Your task to perform on an android device: Add logitech g910 to the cart on ebay.com, then select checkout. Image 0: 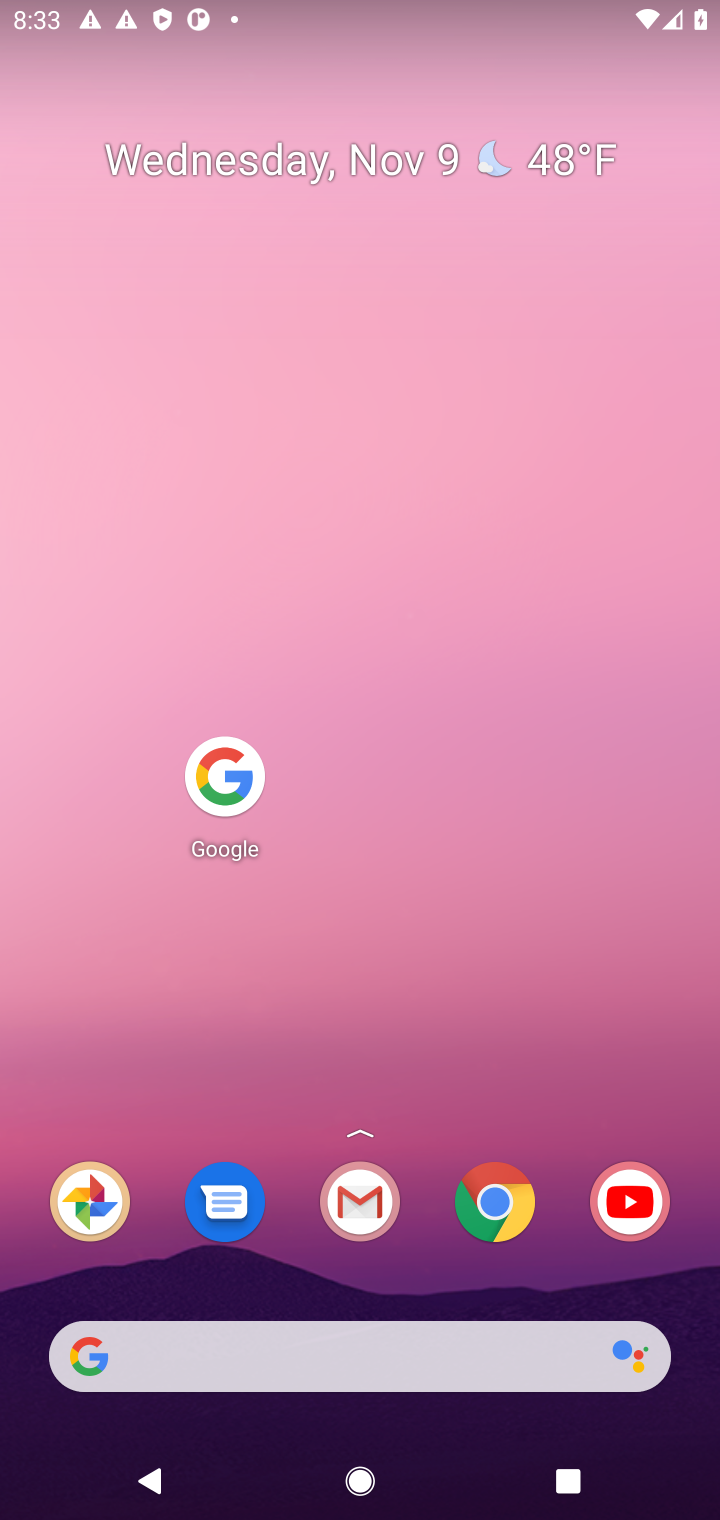
Step 0: click (215, 790)
Your task to perform on an android device: Add logitech g910 to the cart on ebay.com, then select checkout. Image 1: 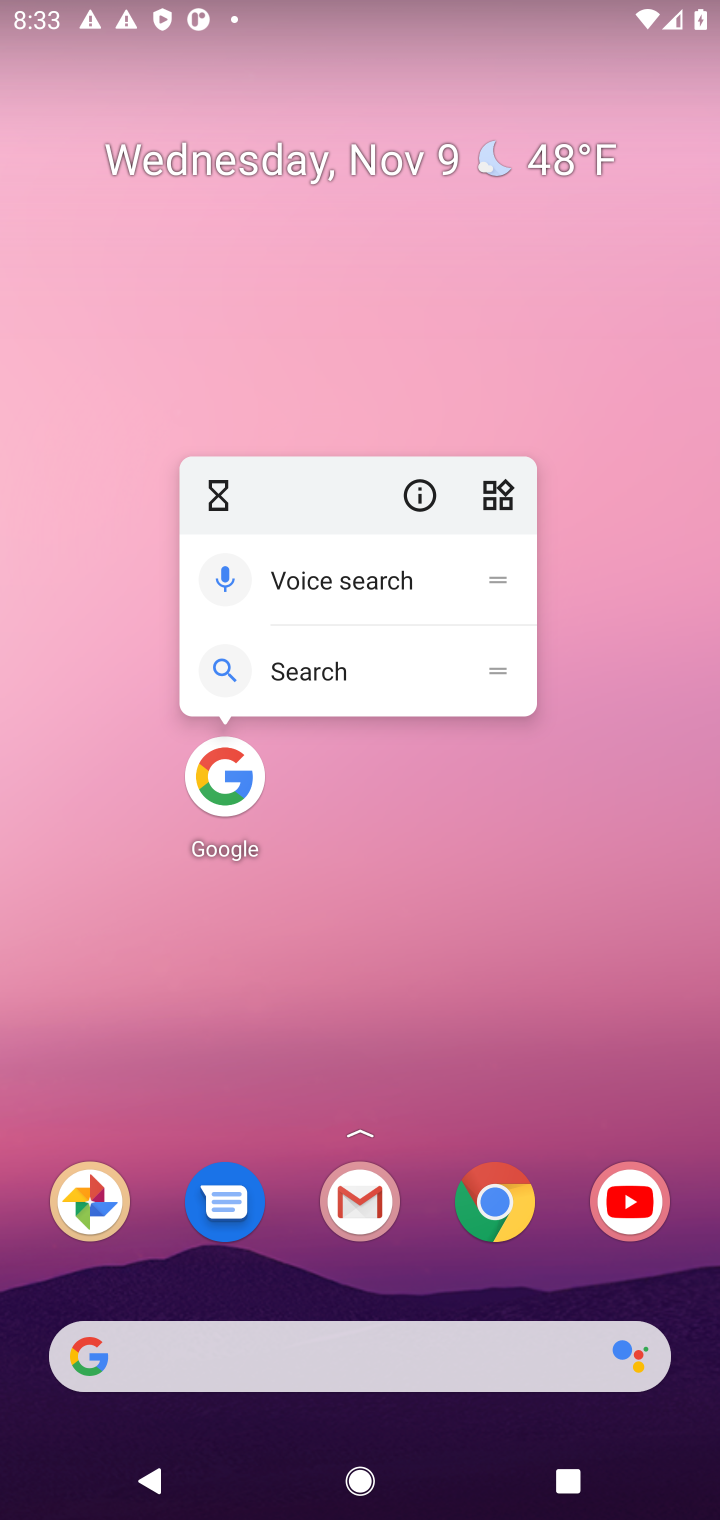
Step 1: click (215, 790)
Your task to perform on an android device: Add logitech g910 to the cart on ebay.com, then select checkout. Image 2: 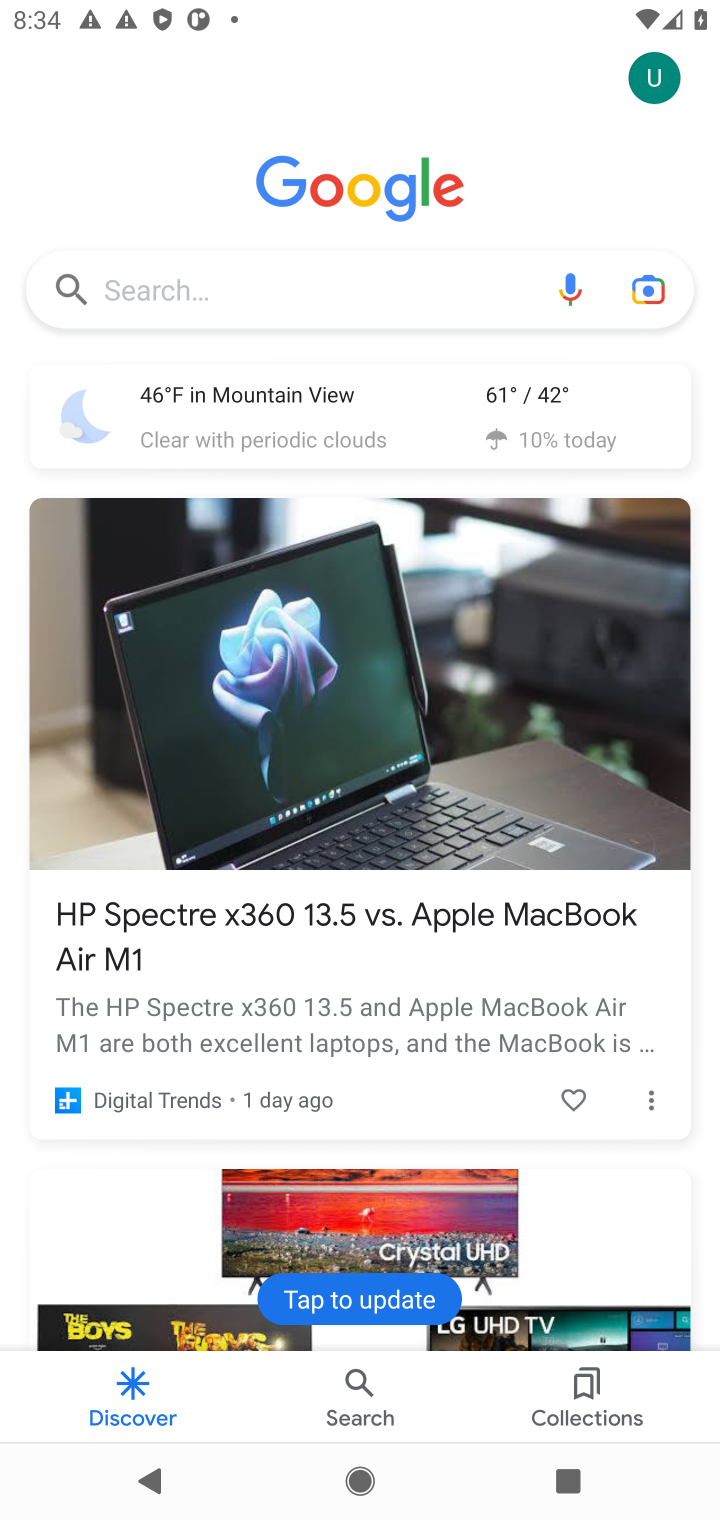
Step 2: click (352, 1381)
Your task to perform on an android device: Add logitech g910 to the cart on ebay.com, then select checkout. Image 3: 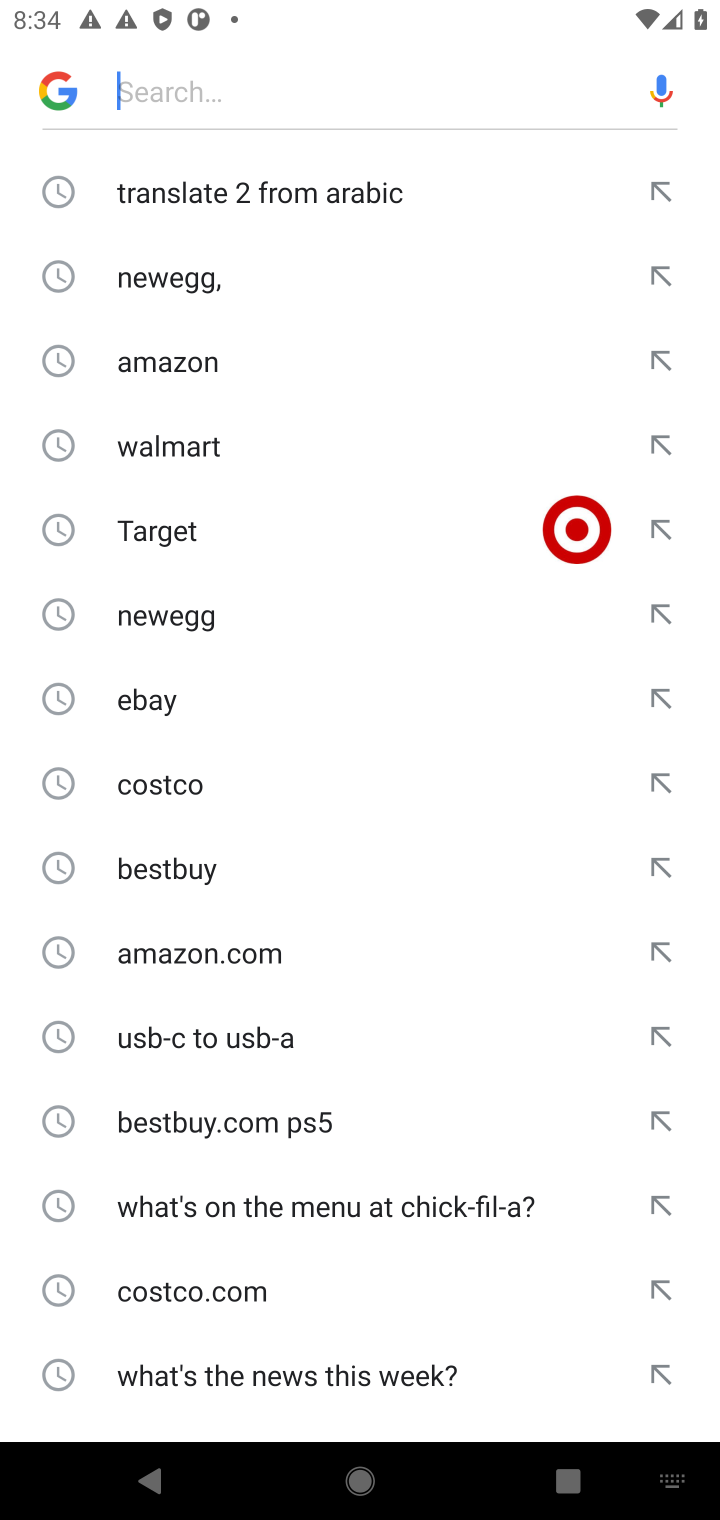
Step 3: click (142, 696)
Your task to perform on an android device: Add logitech g910 to the cart on ebay.com, then select checkout. Image 4: 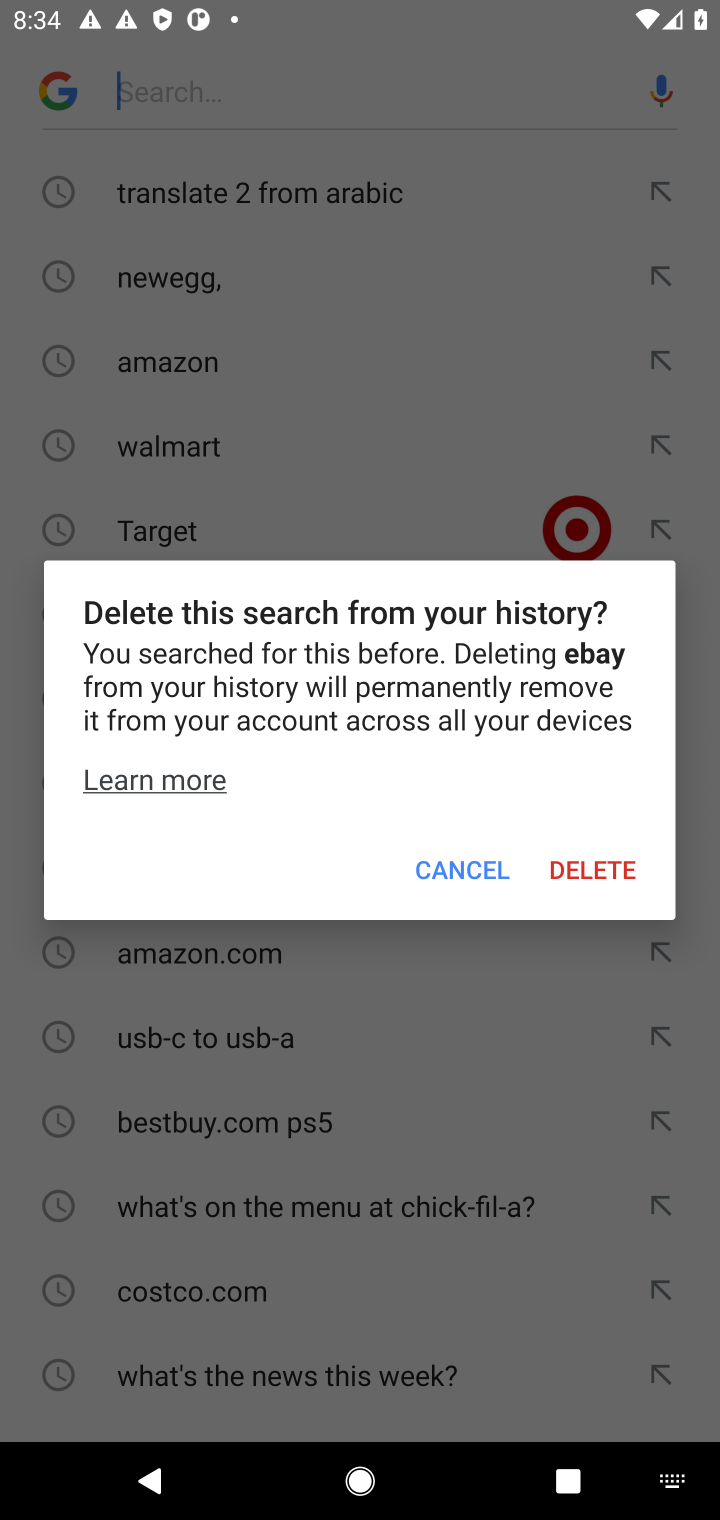
Step 4: click (460, 872)
Your task to perform on an android device: Add logitech g910 to the cart on ebay.com, then select checkout. Image 5: 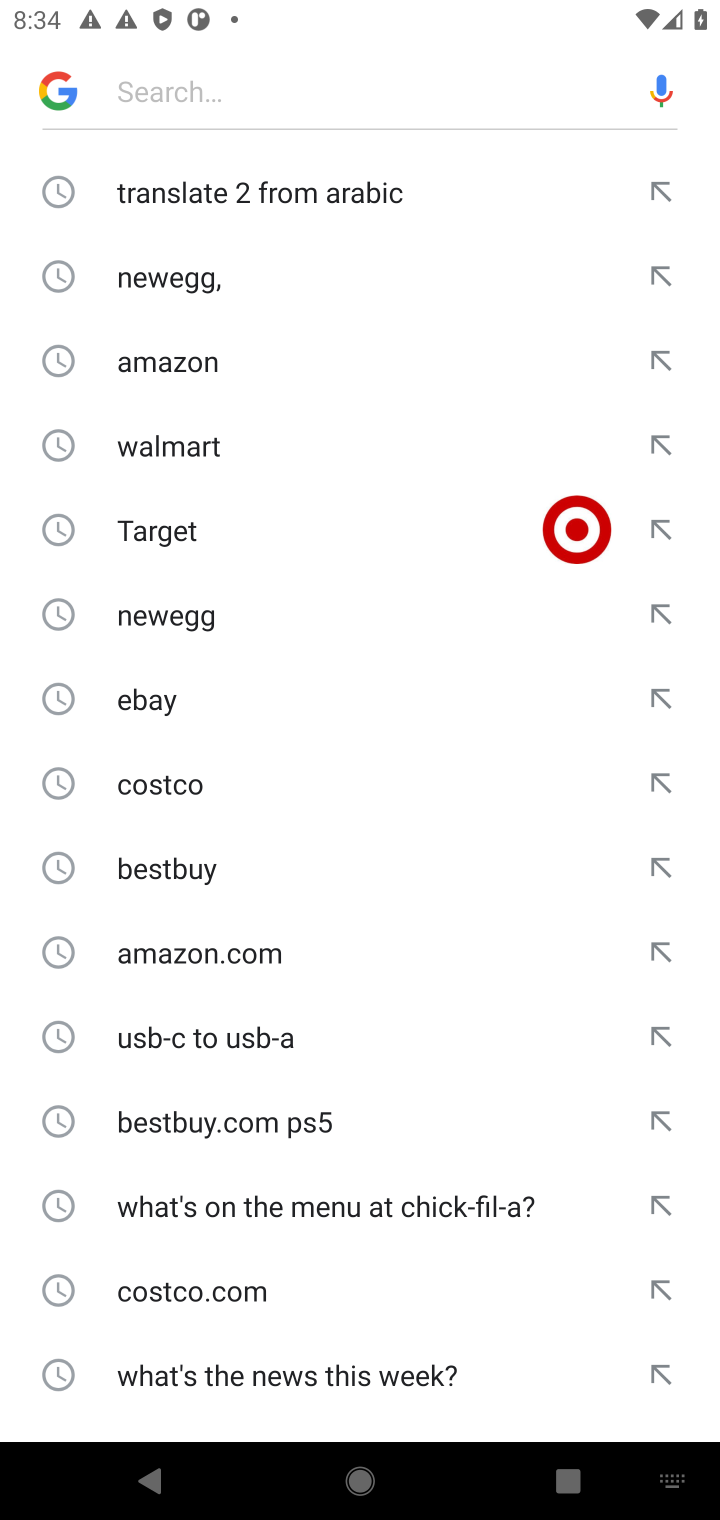
Step 5: click (123, 695)
Your task to perform on an android device: Add logitech g910 to the cart on ebay.com, then select checkout. Image 6: 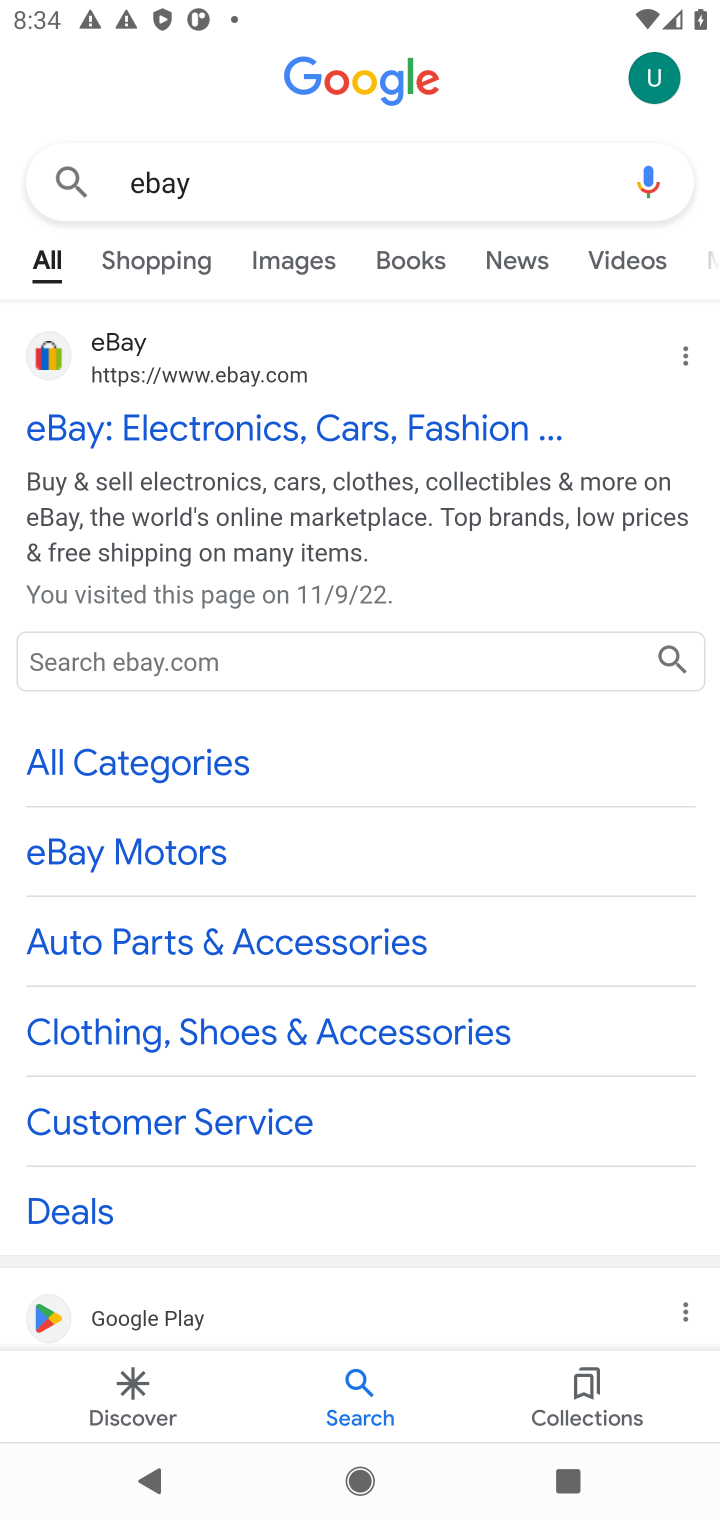
Step 6: click (279, 416)
Your task to perform on an android device: Add logitech g910 to the cart on ebay.com, then select checkout. Image 7: 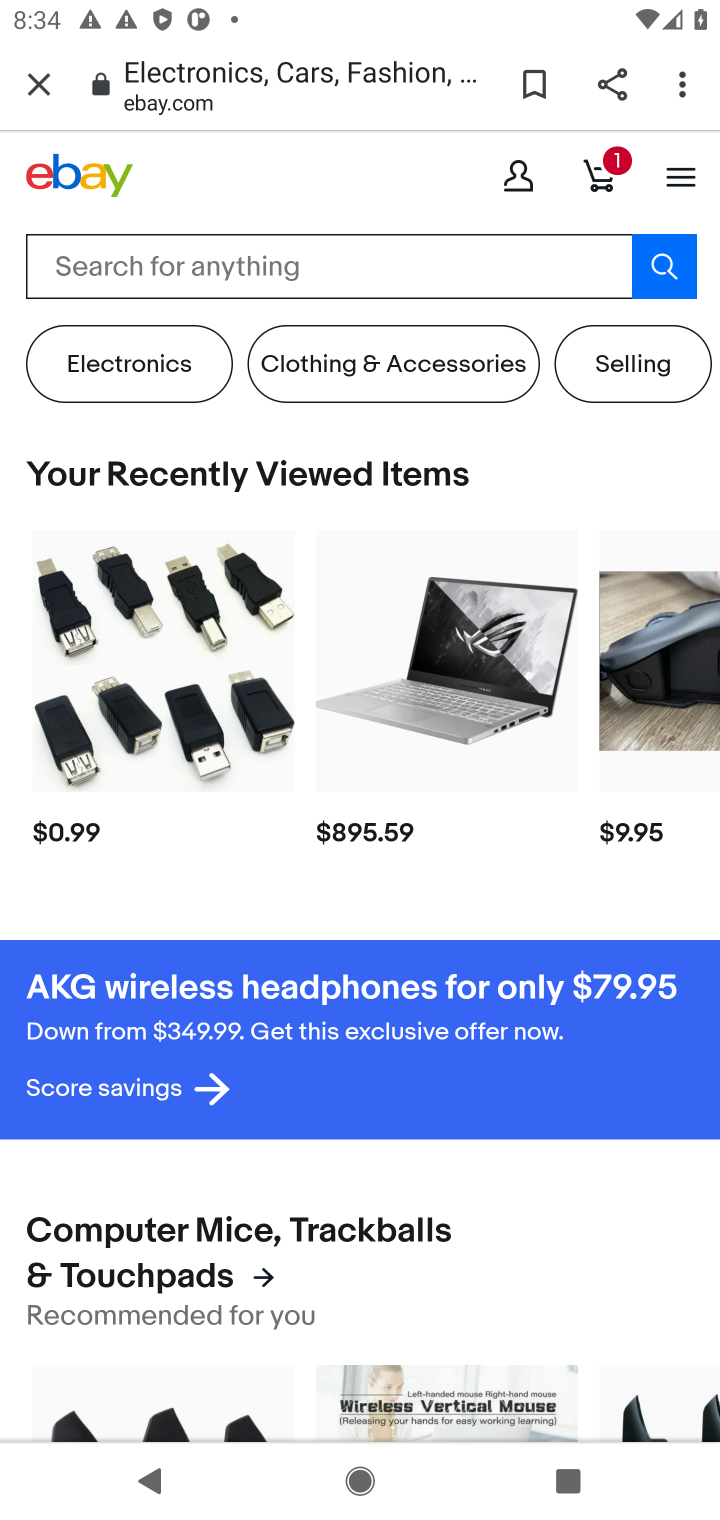
Step 7: click (331, 262)
Your task to perform on an android device: Add logitech g910 to the cart on ebay.com, then select checkout. Image 8: 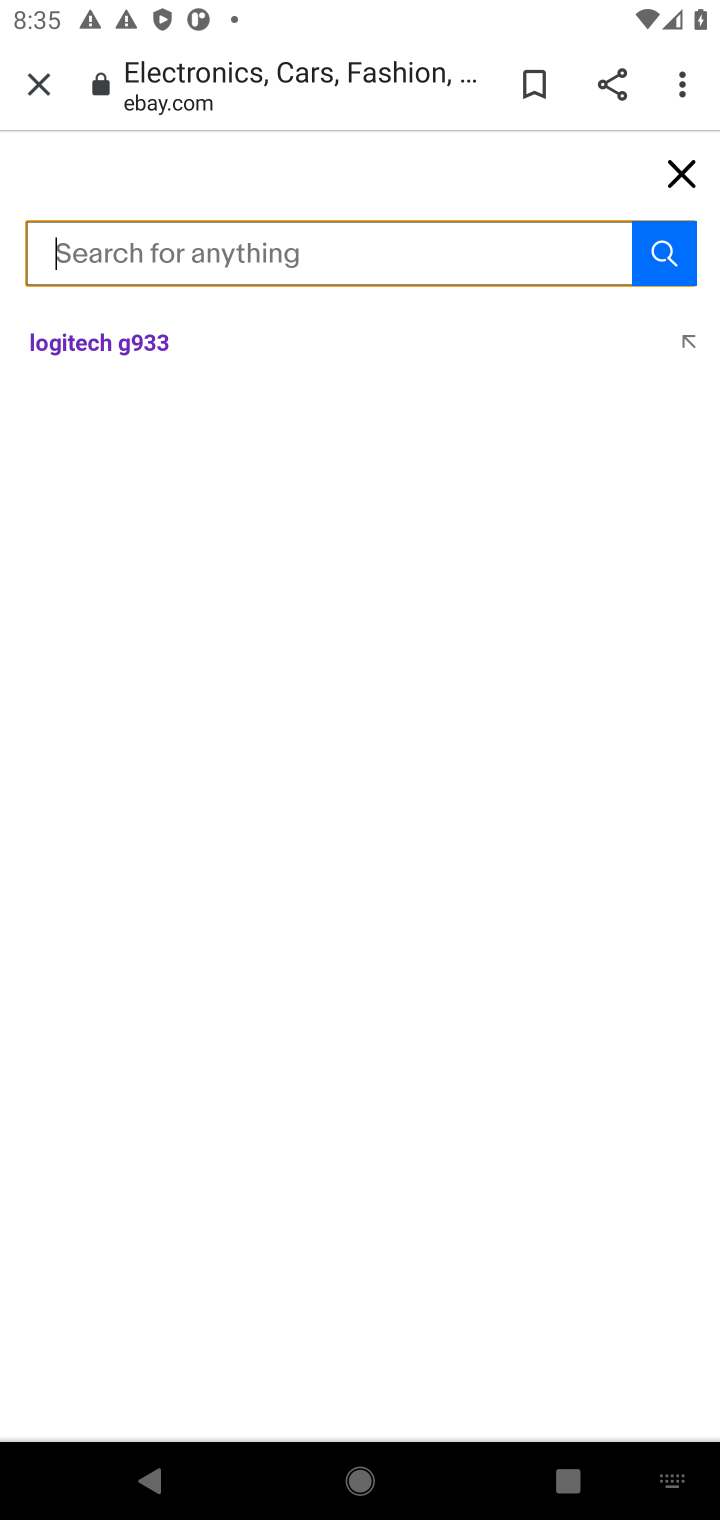
Step 8: type "logitech g910"
Your task to perform on an android device: Add logitech g910 to the cart on ebay.com, then select checkout. Image 9: 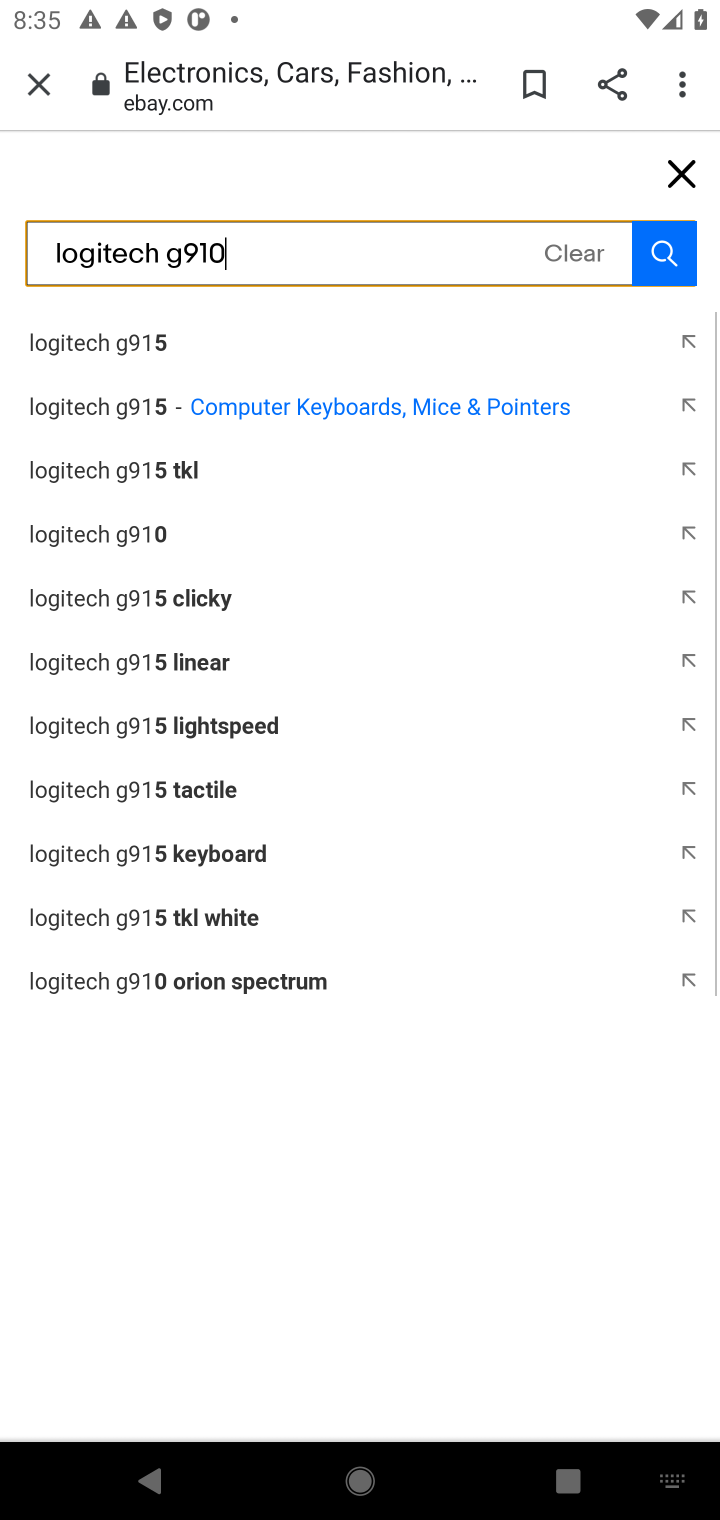
Step 9: press enter
Your task to perform on an android device: Add logitech g910 to the cart on ebay.com, then select checkout. Image 10: 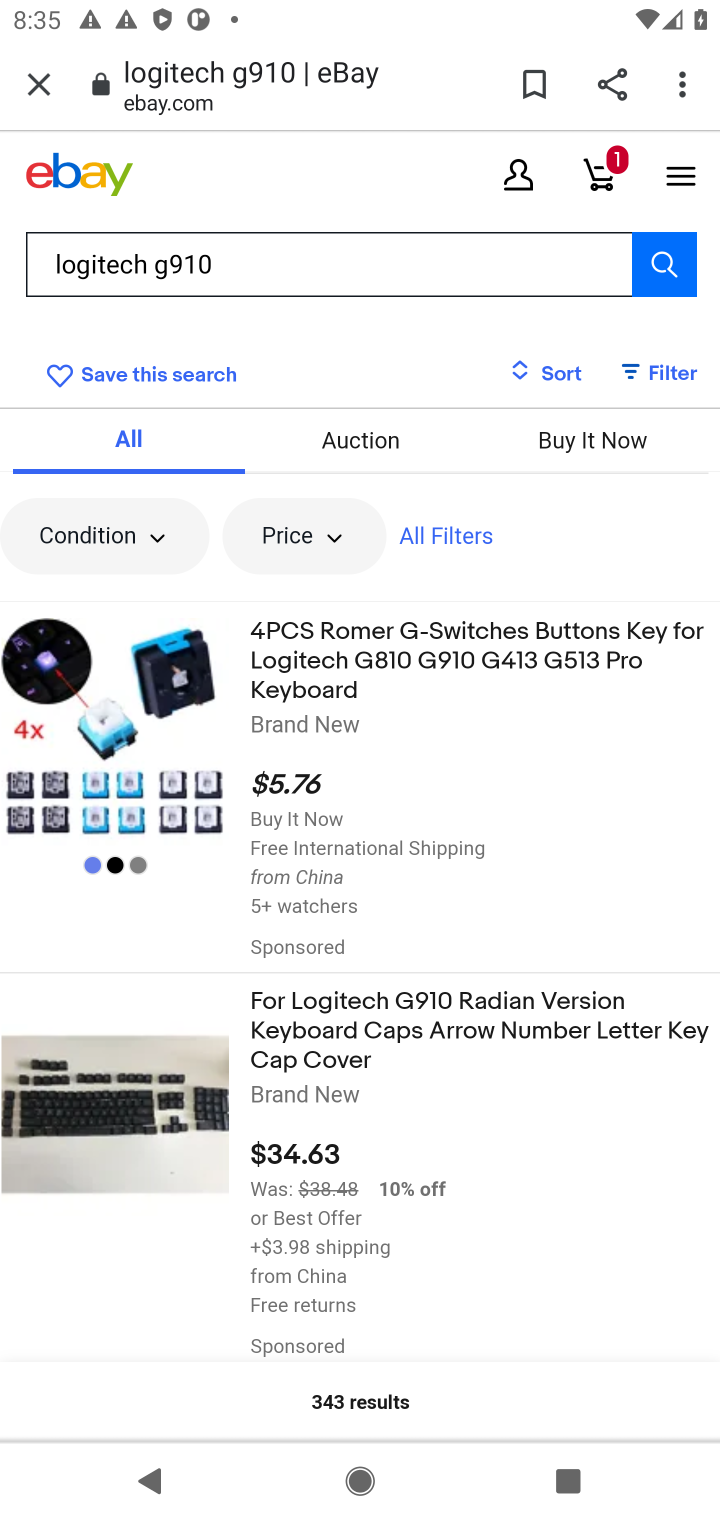
Step 10: drag from (377, 790) to (457, 511)
Your task to perform on an android device: Add logitech g910 to the cart on ebay.com, then select checkout. Image 11: 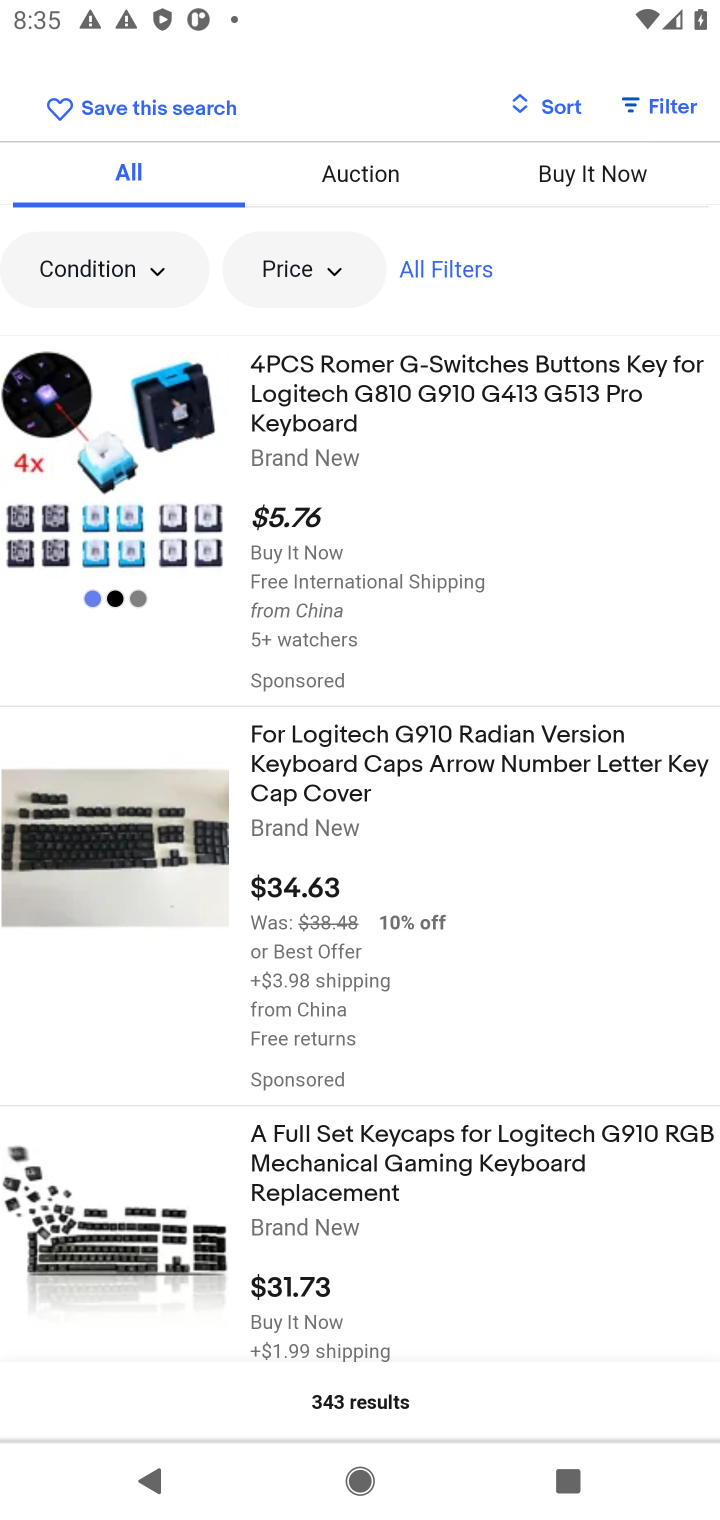
Step 11: click (352, 763)
Your task to perform on an android device: Add logitech g910 to the cart on ebay.com, then select checkout. Image 12: 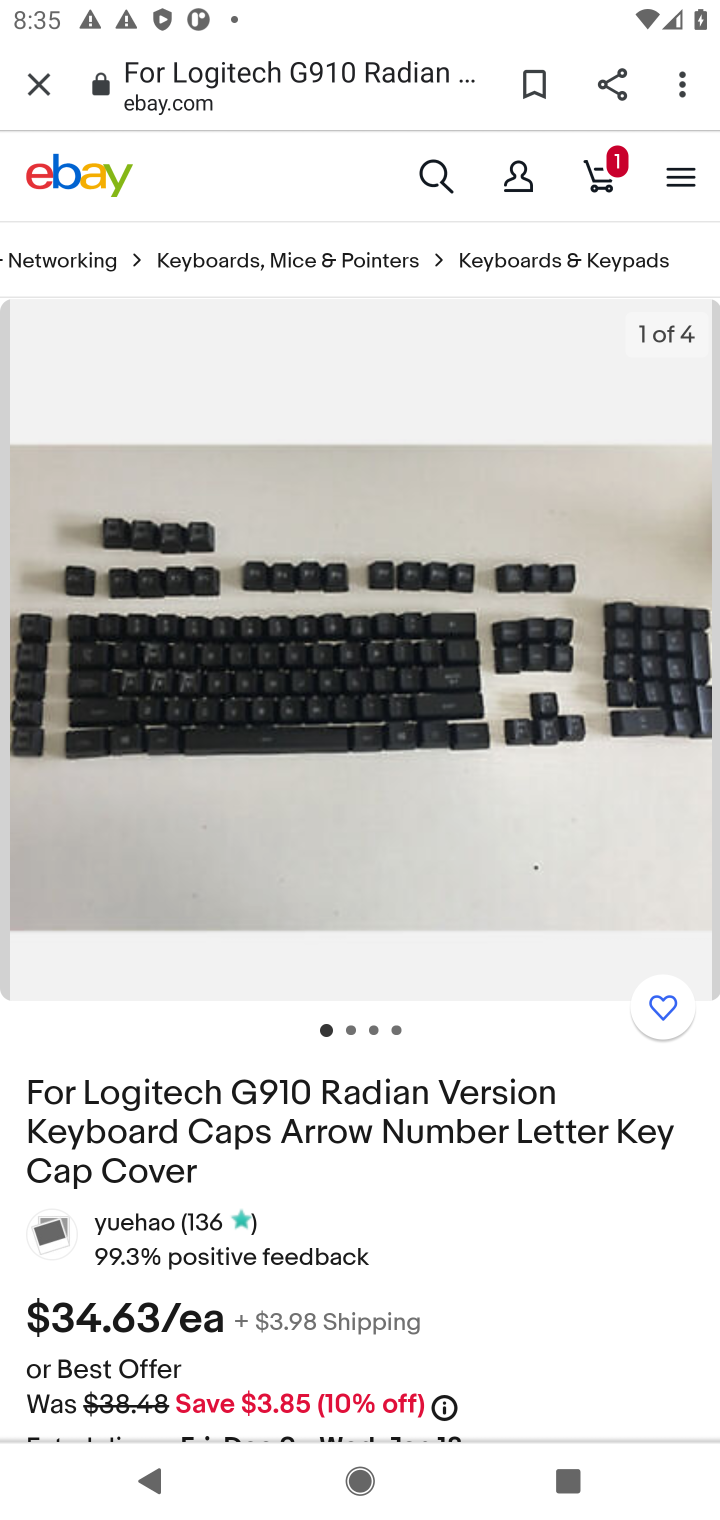
Step 12: drag from (325, 1232) to (425, 362)
Your task to perform on an android device: Add logitech g910 to the cart on ebay.com, then select checkout. Image 13: 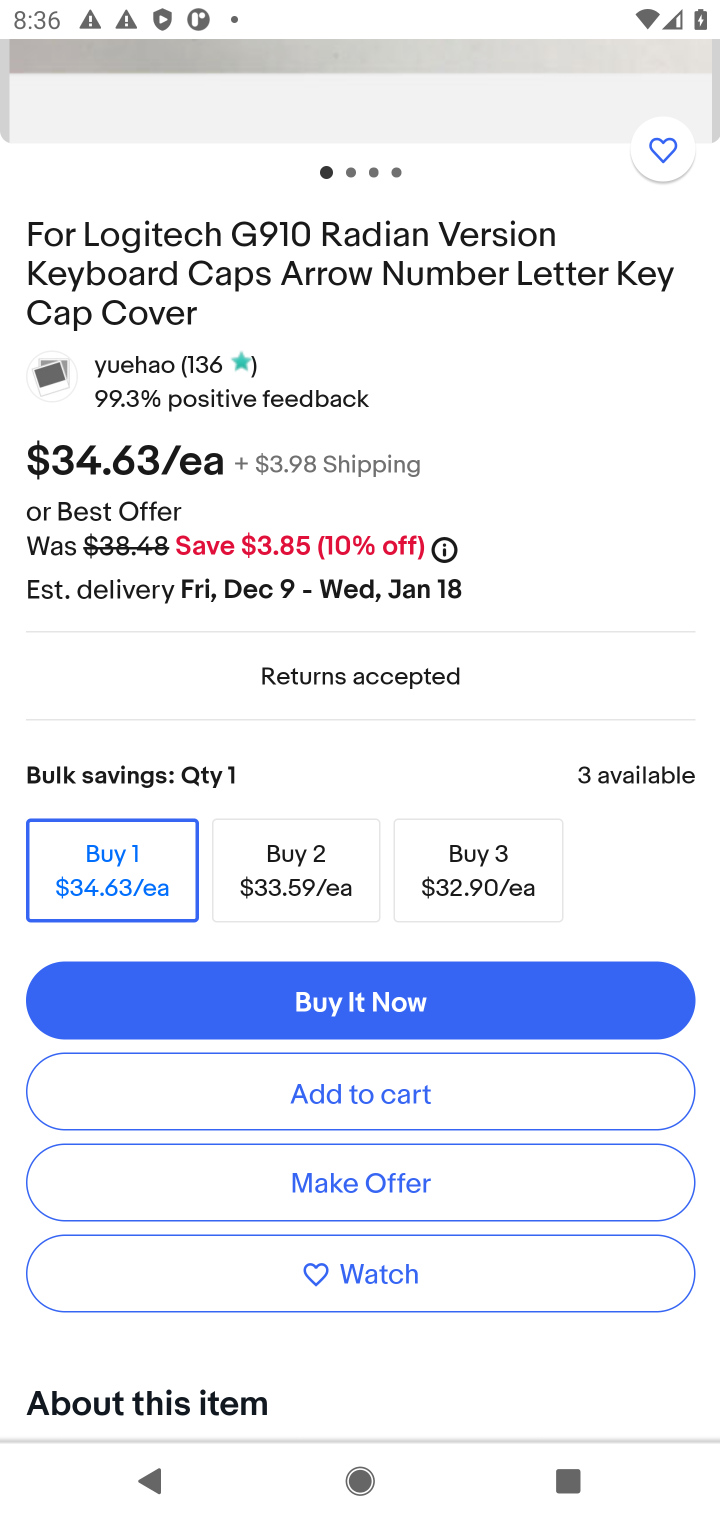
Step 13: click (375, 1093)
Your task to perform on an android device: Add logitech g910 to the cart on ebay.com, then select checkout. Image 14: 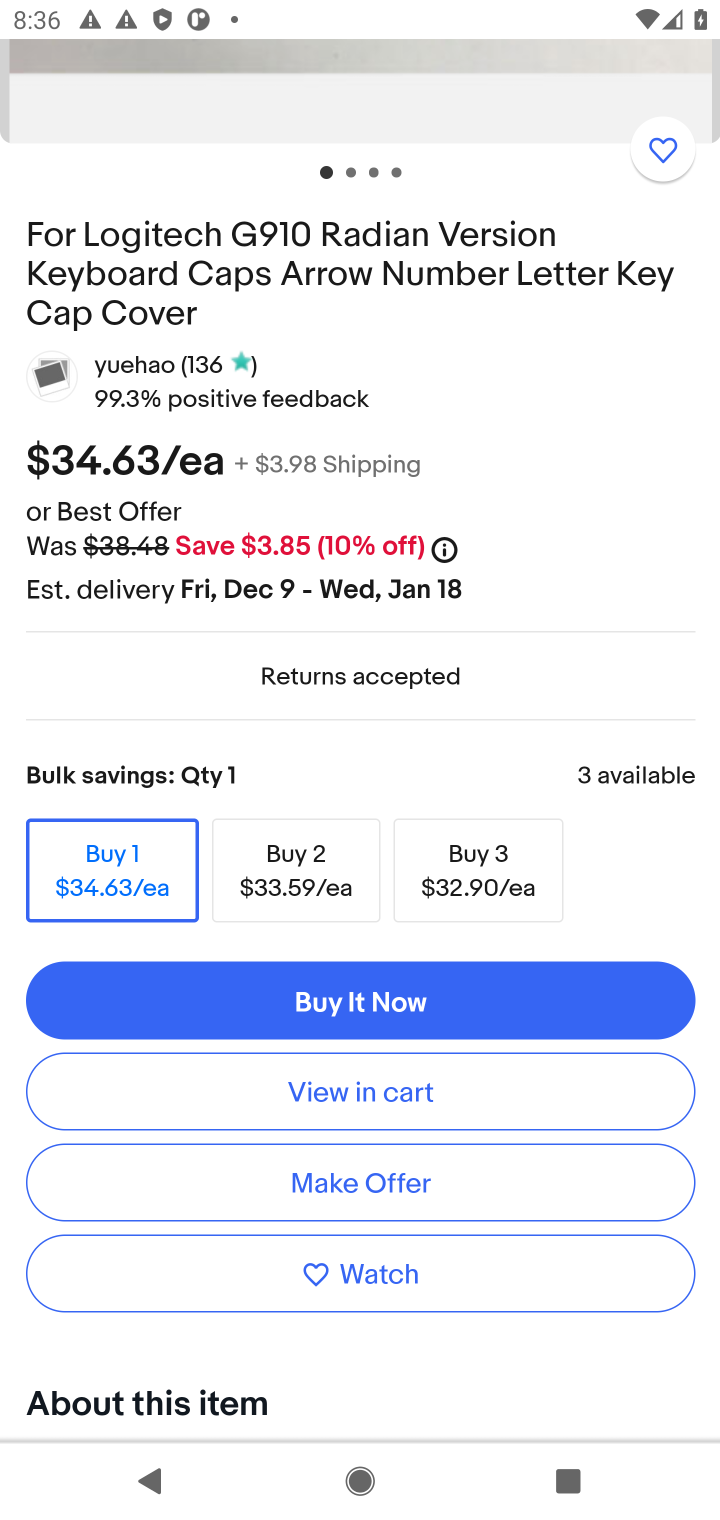
Step 14: click (361, 1097)
Your task to perform on an android device: Add logitech g910 to the cart on ebay.com, then select checkout. Image 15: 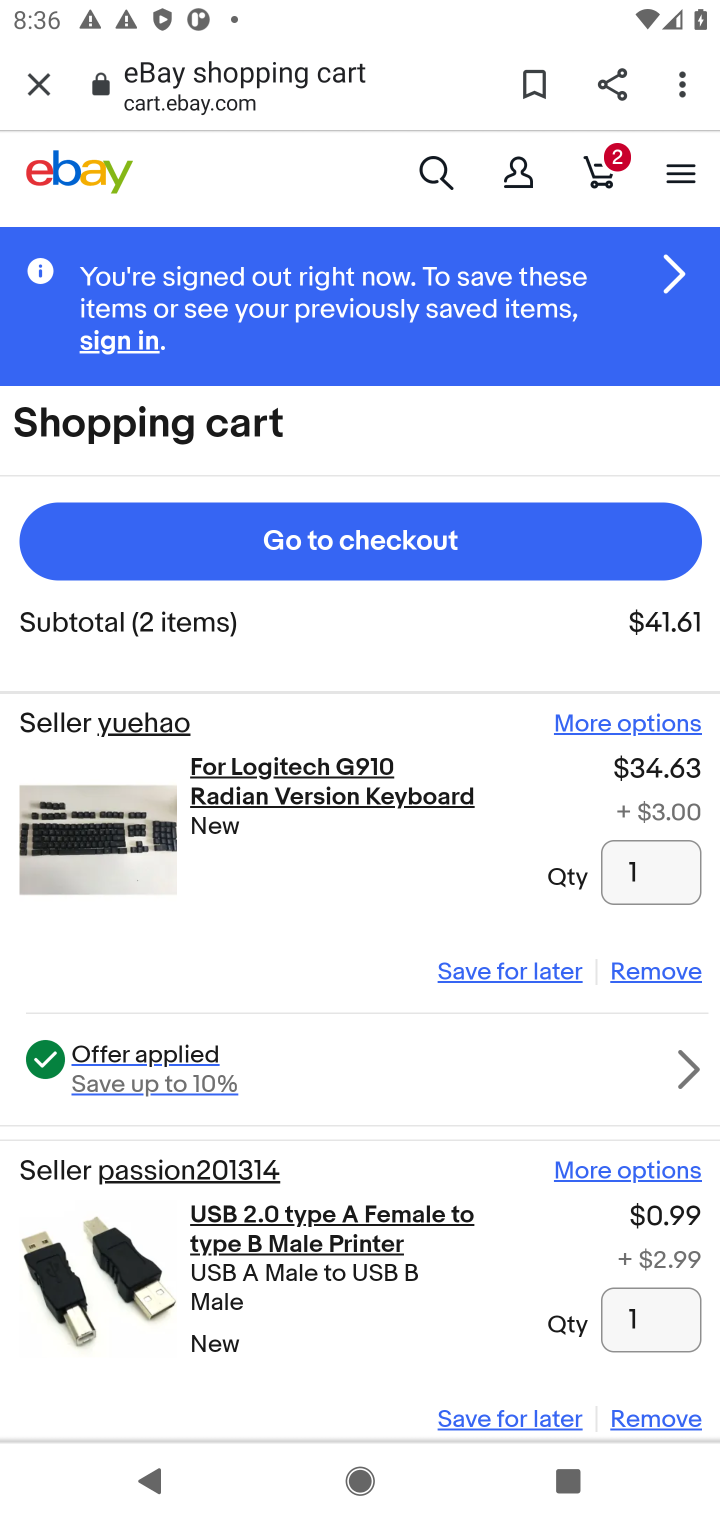
Step 15: drag from (411, 1327) to (482, 837)
Your task to perform on an android device: Add logitech g910 to the cart on ebay.com, then select checkout. Image 16: 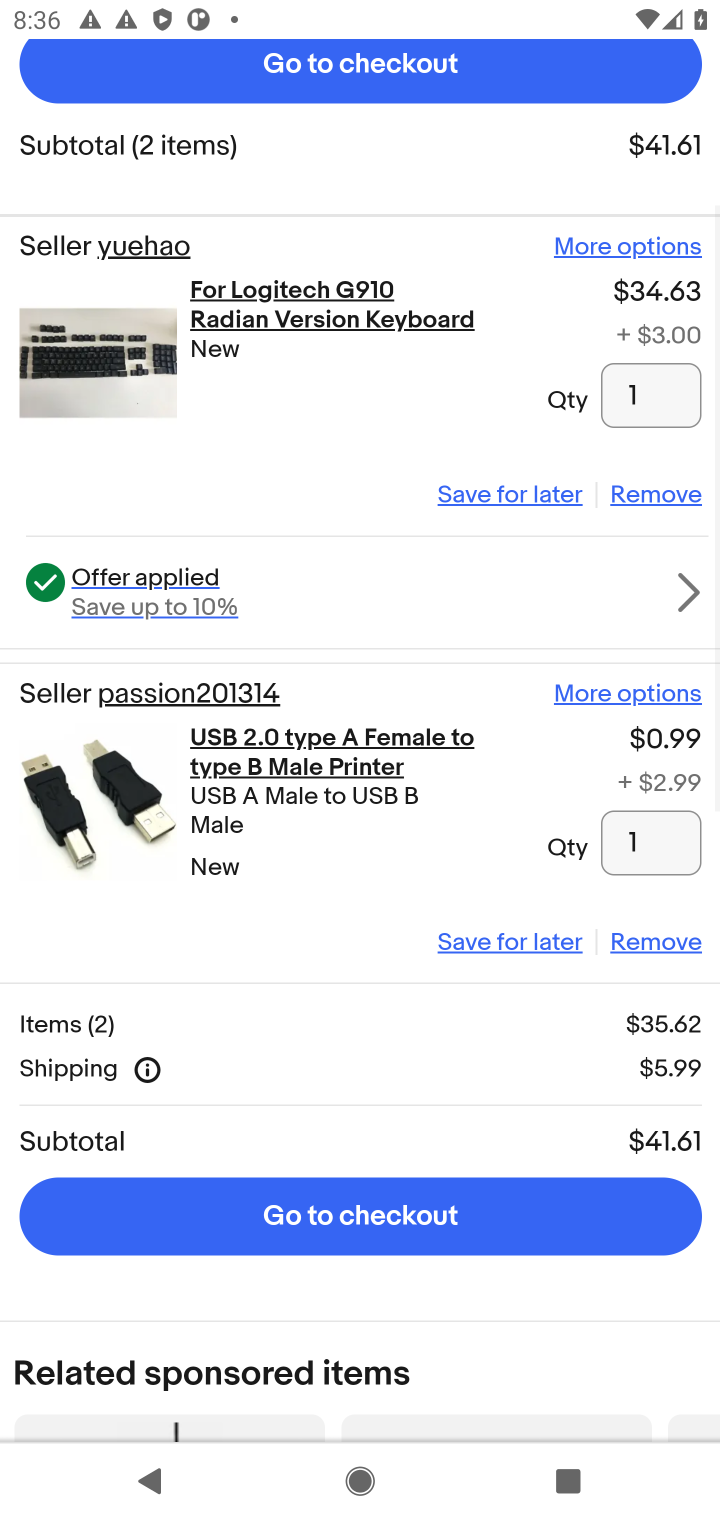
Step 16: click (652, 944)
Your task to perform on an android device: Add logitech g910 to the cart on ebay.com, then select checkout. Image 17: 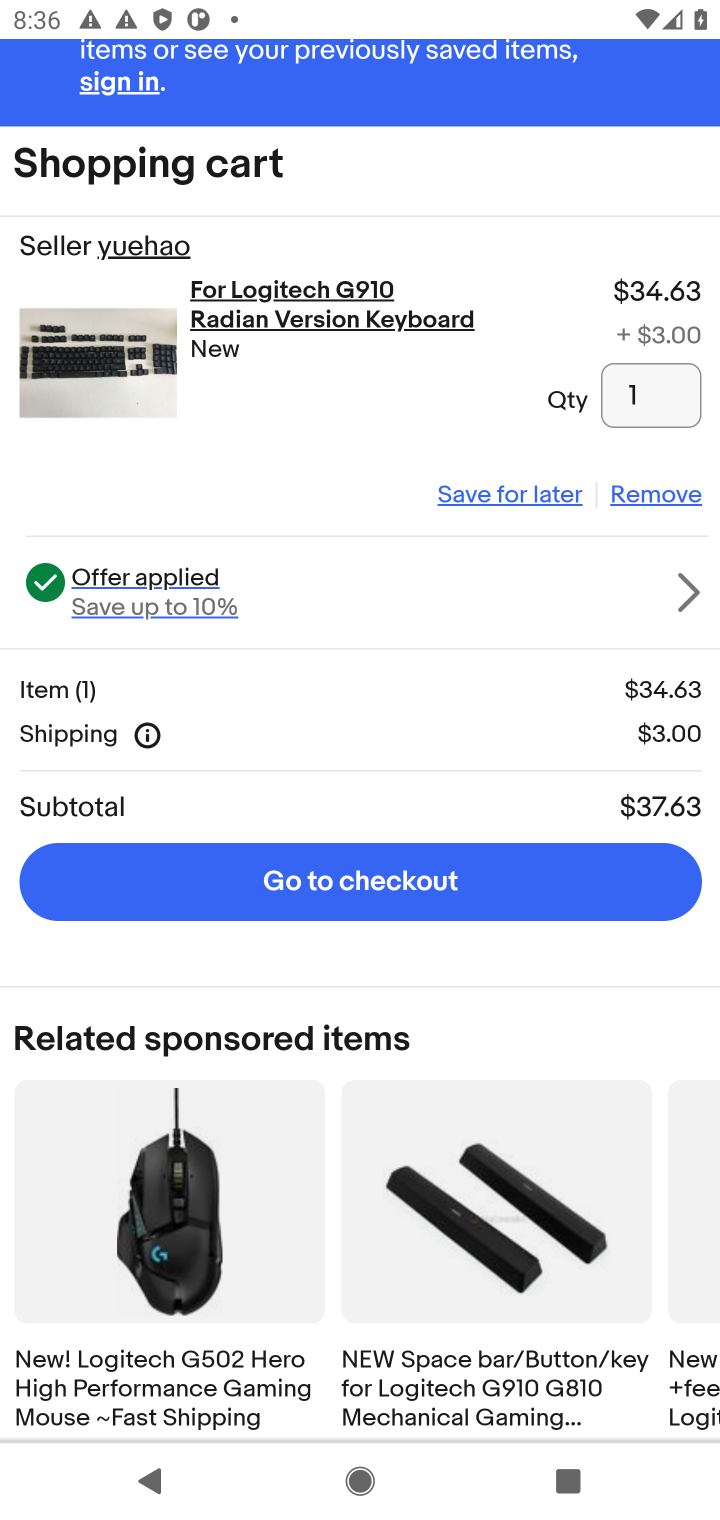
Step 17: click (351, 880)
Your task to perform on an android device: Add logitech g910 to the cart on ebay.com, then select checkout. Image 18: 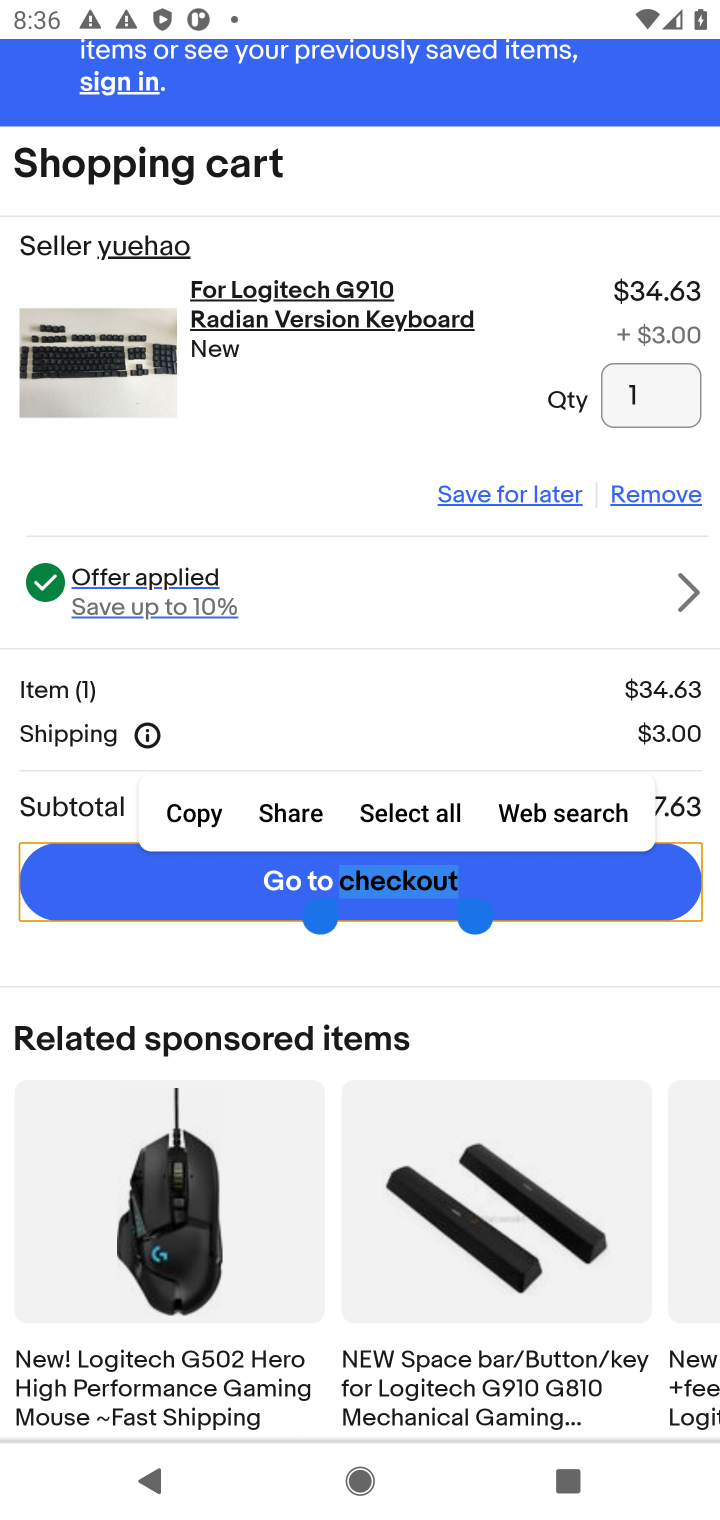
Step 18: click (310, 880)
Your task to perform on an android device: Add logitech g910 to the cart on ebay.com, then select checkout. Image 19: 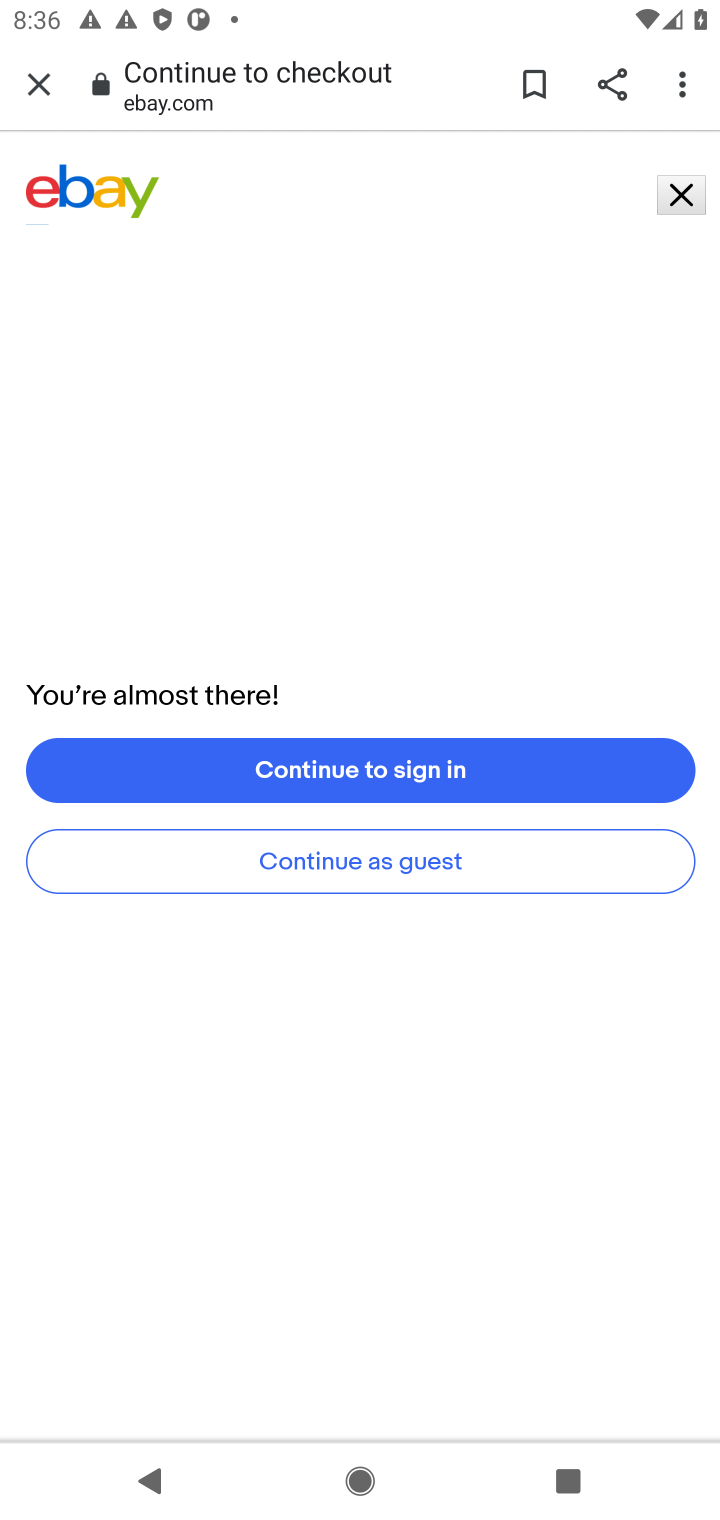
Step 19: task complete